Your task to perform on an android device: clear history in the chrome app Image 0: 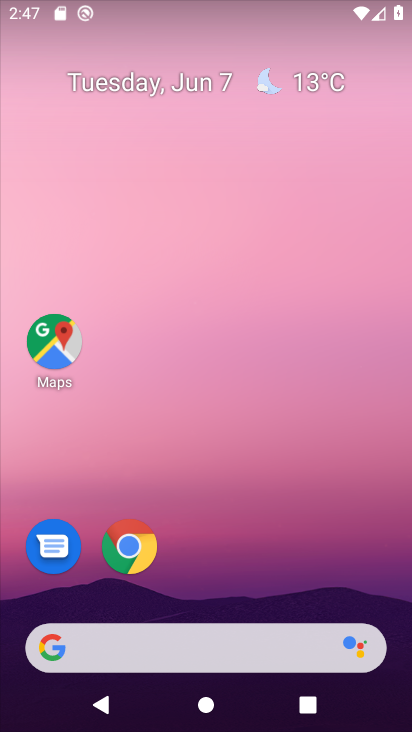
Step 0: drag from (370, 448) to (370, 83)
Your task to perform on an android device: clear history in the chrome app Image 1: 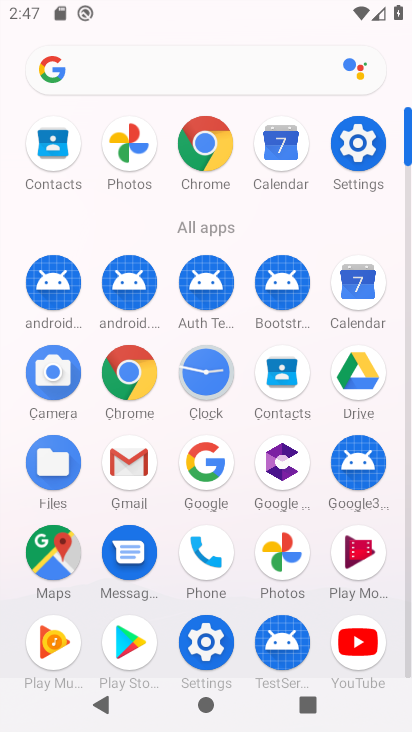
Step 1: click (130, 382)
Your task to perform on an android device: clear history in the chrome app Image 2: 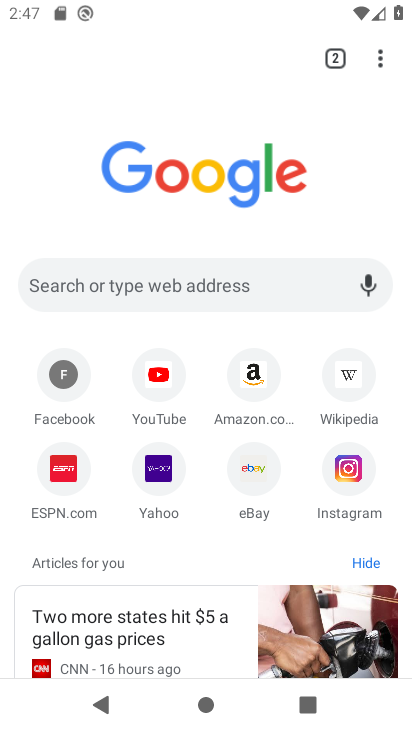
Step 2: drag from (205, 537) to (202, 471)
Your task to perform on an android device: clear history in the chrome app Image 3: 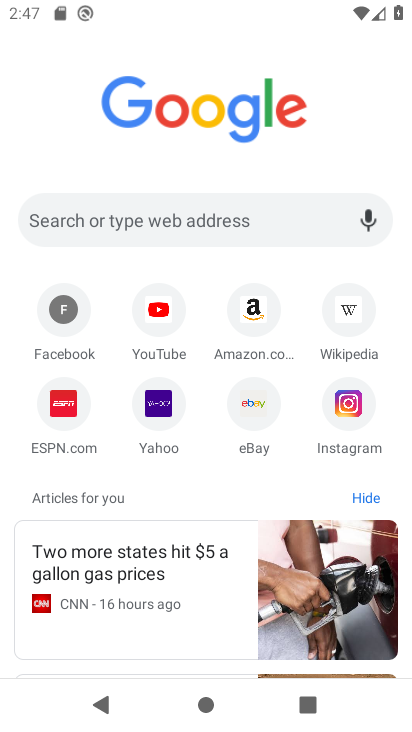
Step 3: drag from (286, 135) to (289, 406)
Your task to perform on an android device: clear history in the chrome app Image 4: 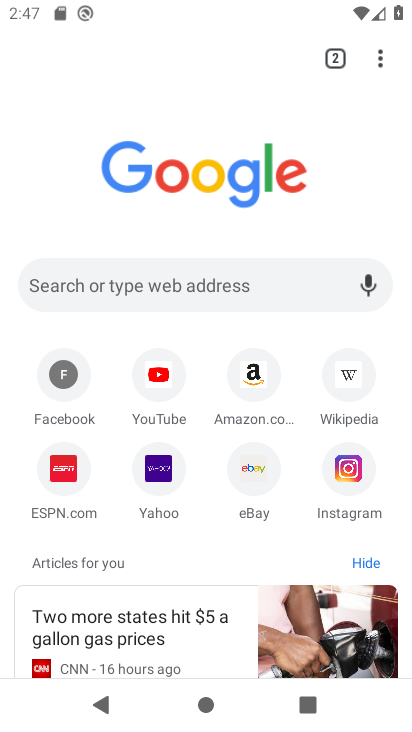
Step 4: click (383, 69)
Your task to perform on an android device: clear history in the chrome app Image 5: 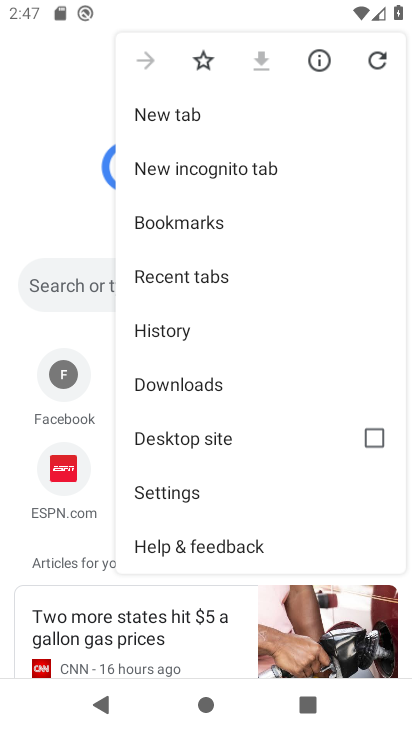
Step 5: click (211, 340)
Your task to perform on an android device: clear history in the chrome app Image 6: 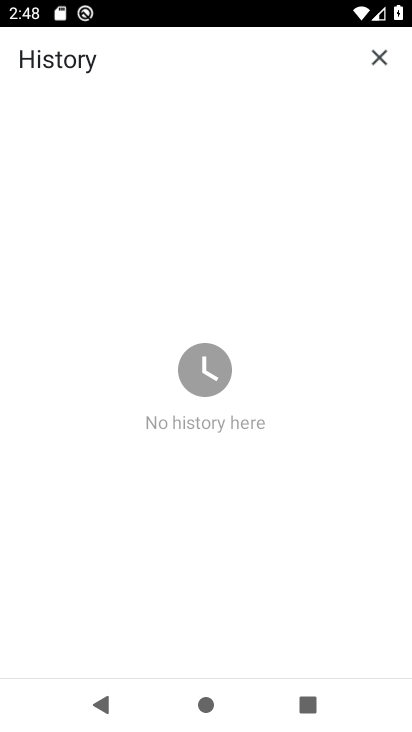
Step 6: task complete